Your task to perform on an android device: turn on improve location accuracy Image 0: 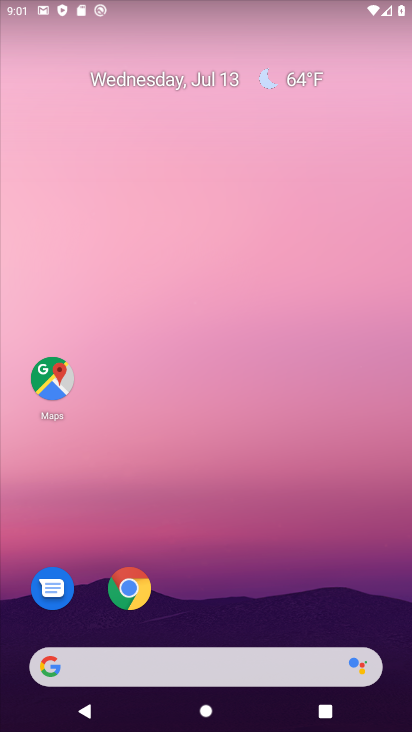
Step 0: drag from (240, 632) to (190, 34)
Your task to perform on an android device: turn on improve location accuracy Image 1: 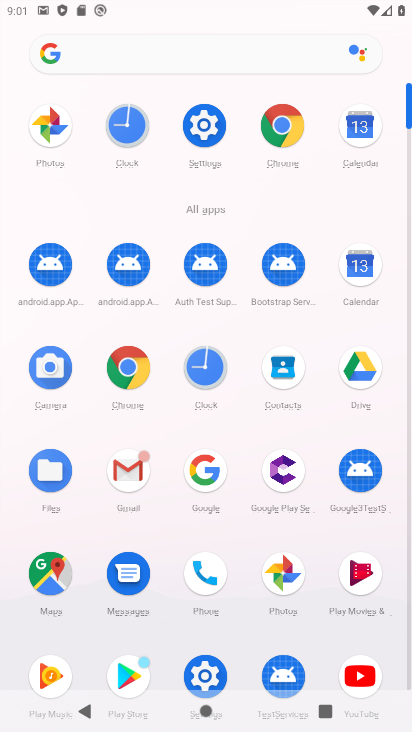
Step 1: click (212, 124)
Your task to perform on an android device: turn on improve location accuracy Image 2: 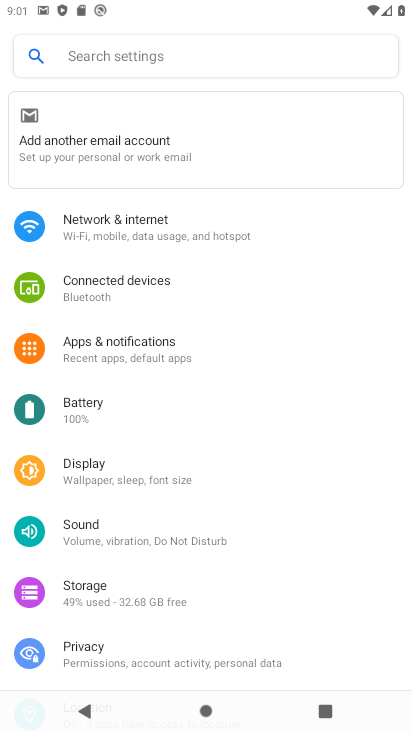
Step 2: drag from (218, 534) to (191, 180)
Your task to perform on an android device: turn on improve location accuracy Image 3: 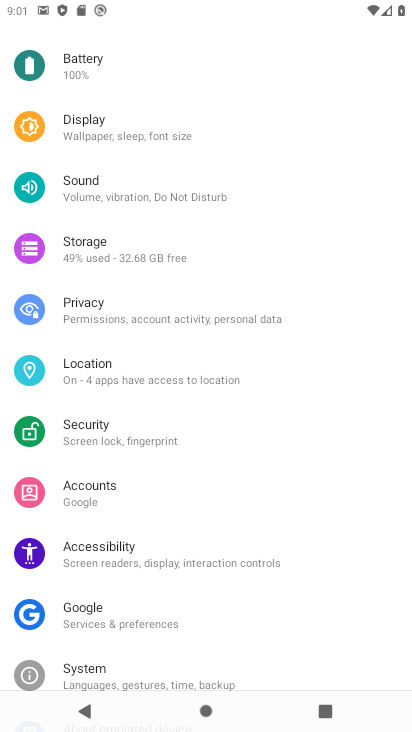
Step 3: click (109, 368)
Your task to perform on an android device: turn on improve location accuracy Image 4: 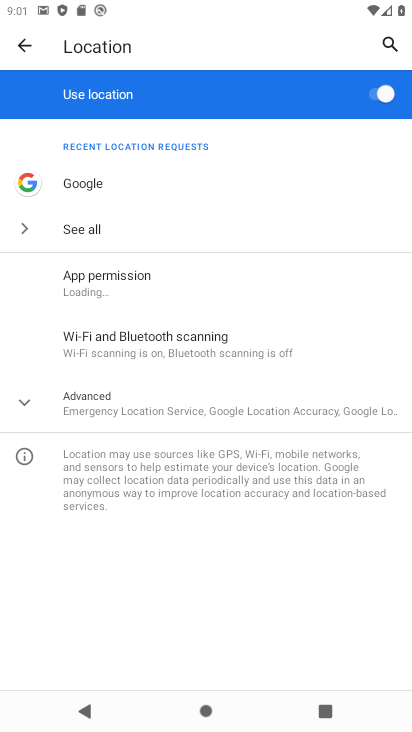
Step 4: click (91, 400)
Your task to perform on an android device: turn on improve location accuracy Image 5: 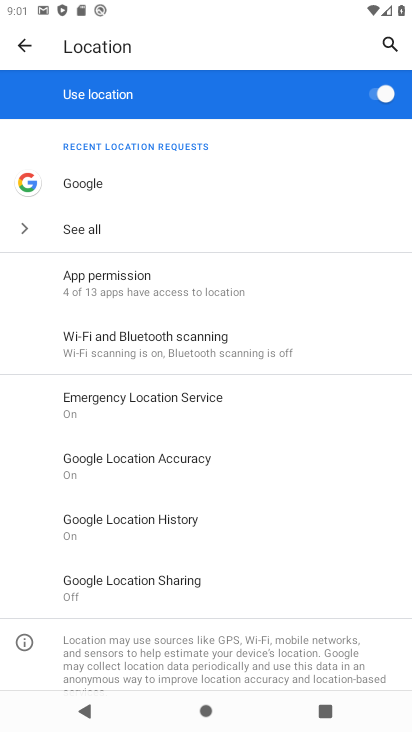
Step 5: click (128, 453)
Your task to perform on an android device: turn on improve location accuracy Image 6: 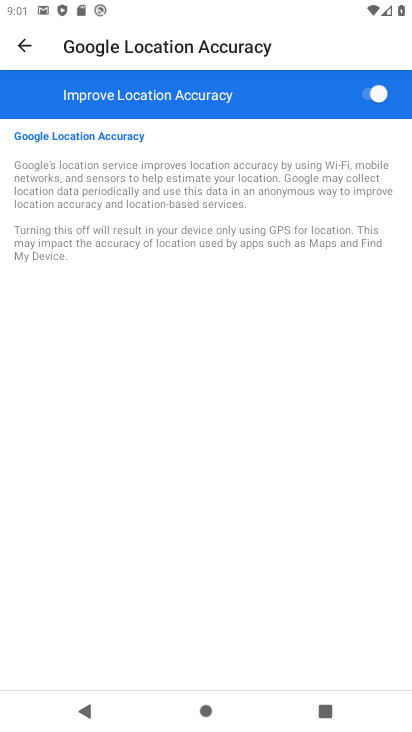
Step 6: task complete